Your task to perform on an android device: Open accessibility settings Image 0: 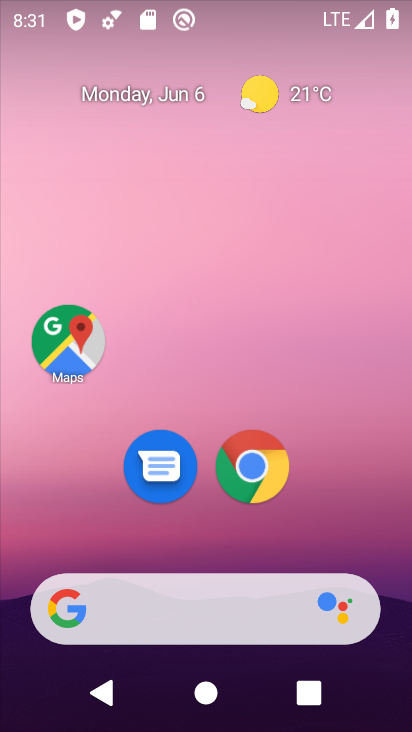
Step 0: click (244, 117)
Your task to perform on an android device: Open accessibility settings Image 1: 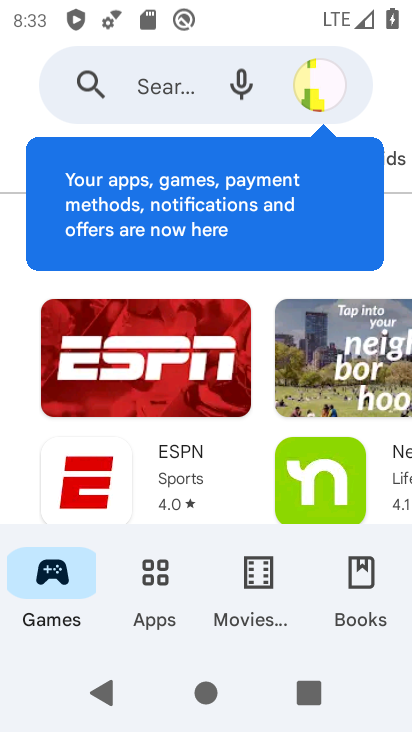
Step 1: press home button
Your task to perform on an android device: Open accessibility settings Image 2: 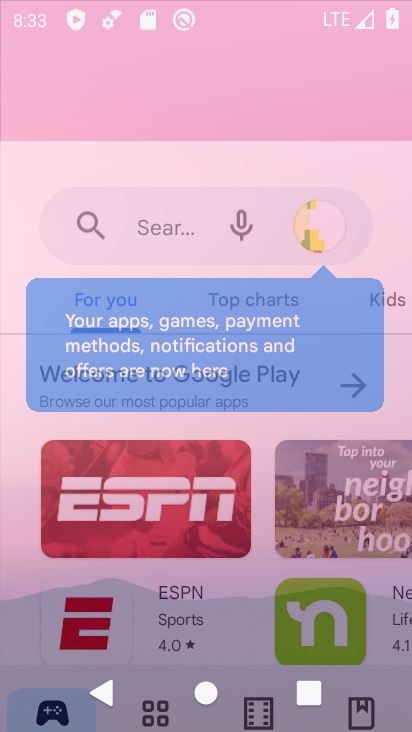
Step 2: drag from (192, 405) to (284, 5)
Your task to perform on an android device: Open accessibility settings Image 3: 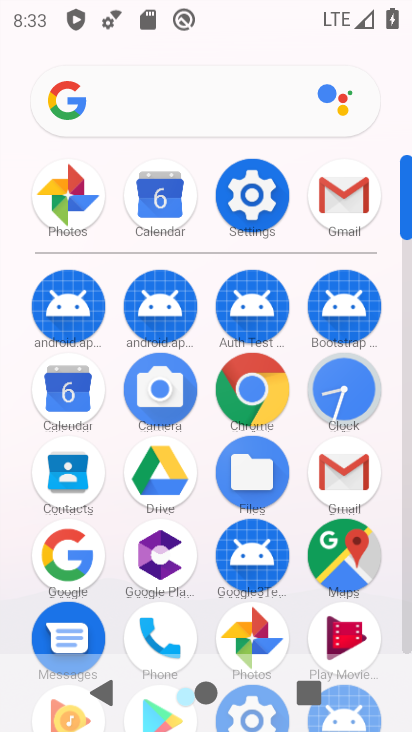
Step 3: click (268, 206)
Your task to perform on an android device: Open accessibility settings Image 4: 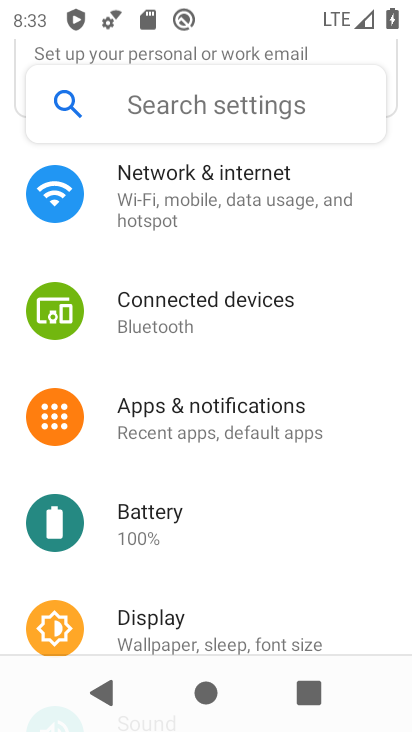
Step 4: drag from (237, 442) to (372, 0)
Your task to perform on an android device: Open accessibility settings Image 5: 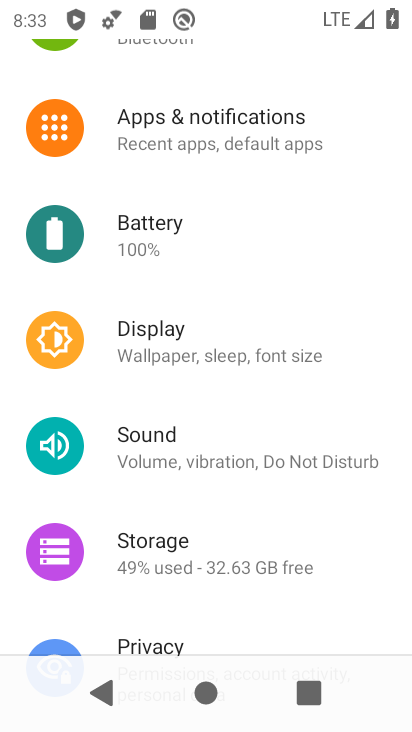
Step 5: drag from (172, 542) to (211, 74)
Your task to perform on an android device: Open accessibility settings Image 6: 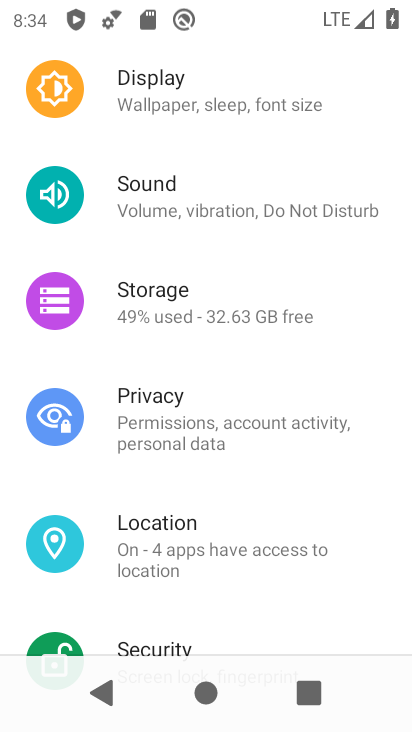
Step 6: drag from (239, 96) to (257, 0)
Your task to perform on an android device: Open accessibility settings Image 7: 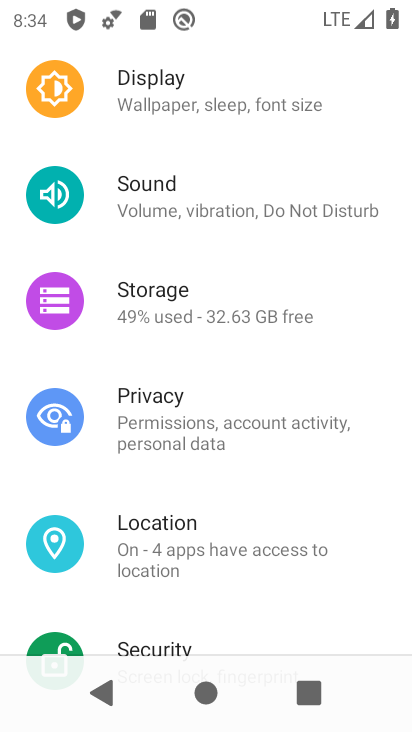
Step 7: drag from (189, 498) to (226, 91)
Your task to perform on an android device: Open accessibility settings Image 8: 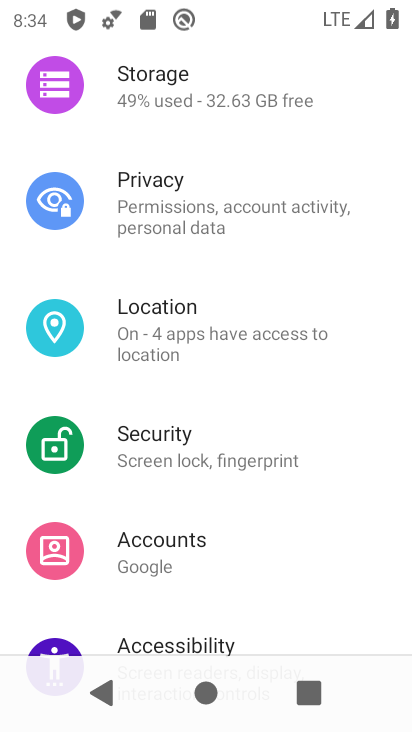
Step 8: click (224, 635)
Your task to perform on an android device: Open accessibility settings Image 9: 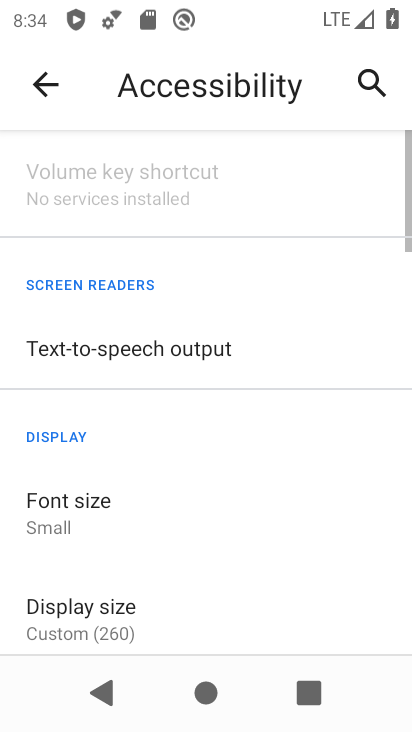
Step 9: task complete